Your task to perform on an android device: Open network settings Image 0: 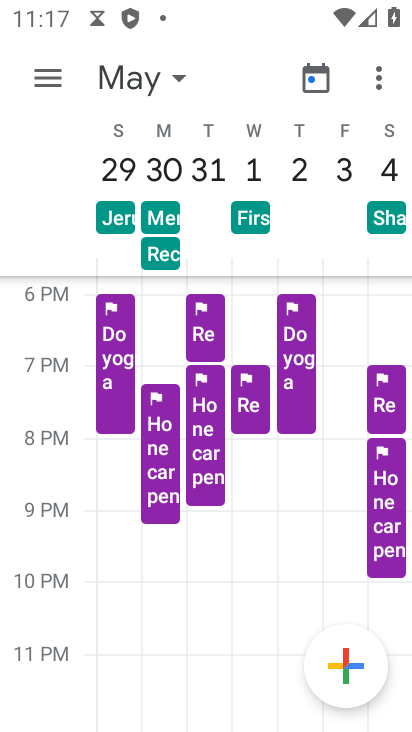
Step 0: press home button
Your task to perform on an android device: Open network settings Image 1: 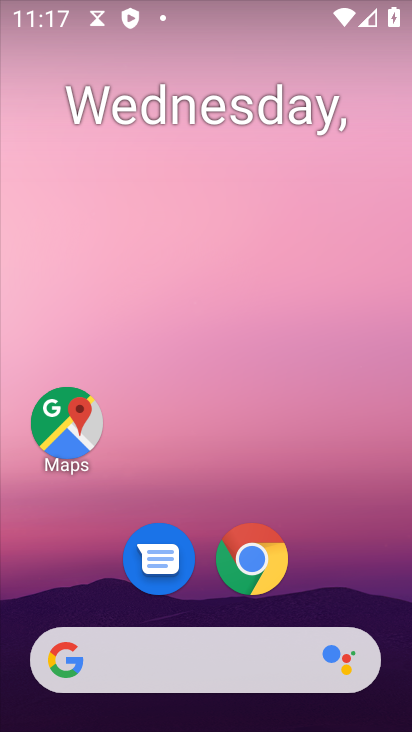
Step 1: drag from (377, 574) to (291, 314)
Your task to perform on an android device: Open network settings Image 2: 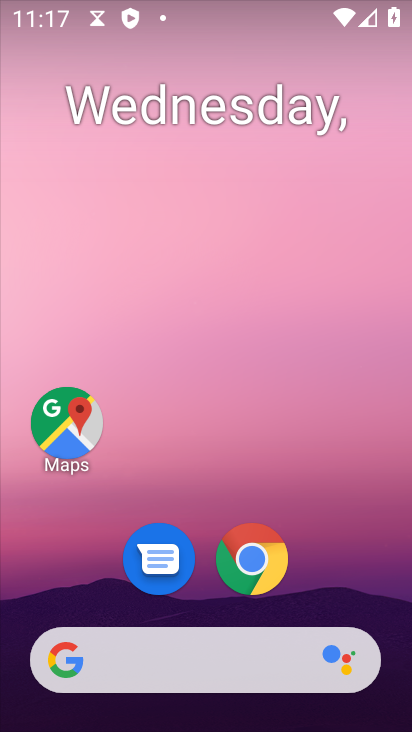
Step 2: drag from (317, 562) to (250, 165)
Your task to perform on an android device: Open network settings Image 3: 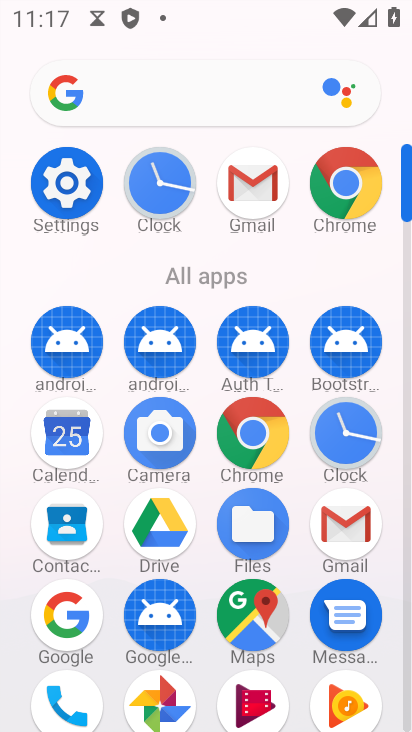
Step 3: click (72, 204)
Your task to perform on an android device: Open network settings Image 4: 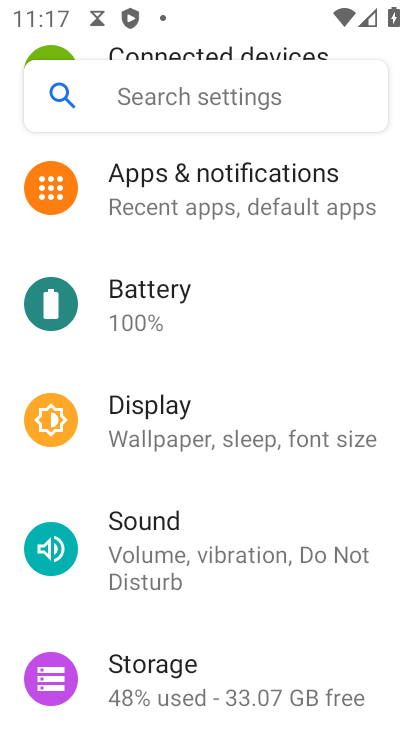
Step 4: drag from (164, 226) to (182, 551)
Your task to perform on an android device: Open network settings Image 5: 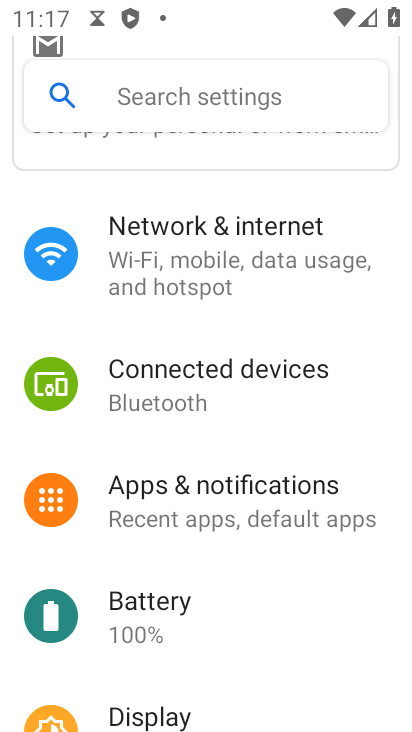
Step 5: click (198, 250)
Your task to perform on an android device: Open network settings Image 6: 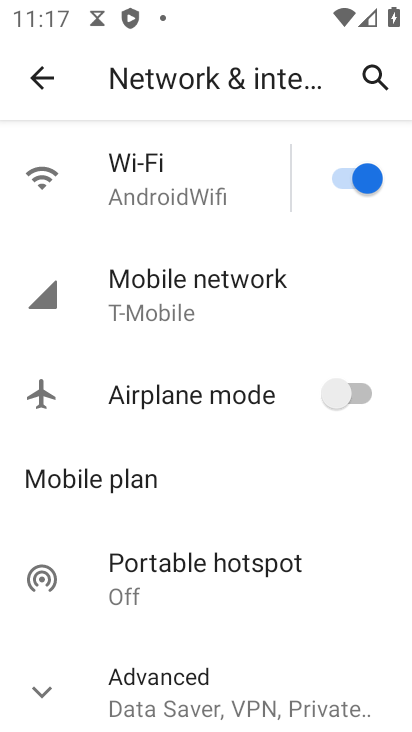
Step 6: task complete